Your task to perform on an android device: Open Chrome and go to settings Image 0: 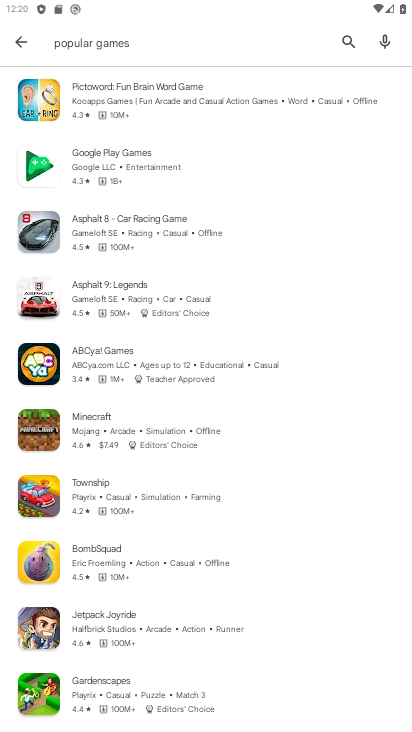
Step 0: press home button
Your task to perform on an android device: Open Chrome and go to settings Image 1: 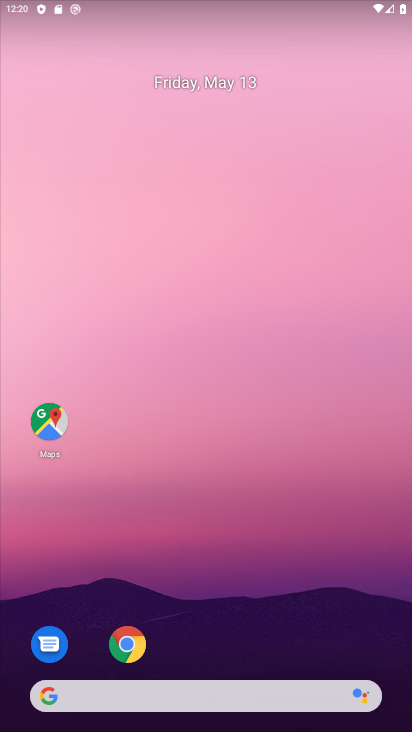
Step 1: click (126, 646)
Your task to perform on an android device: Open Chrome and go to settings Image 2: 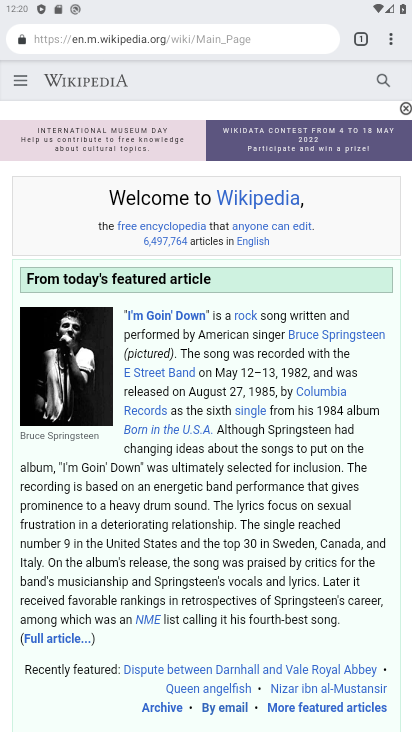
Step 2: click (395, 34)
Your task to perform on an android device: Open Chrome and go to settings Image 3: 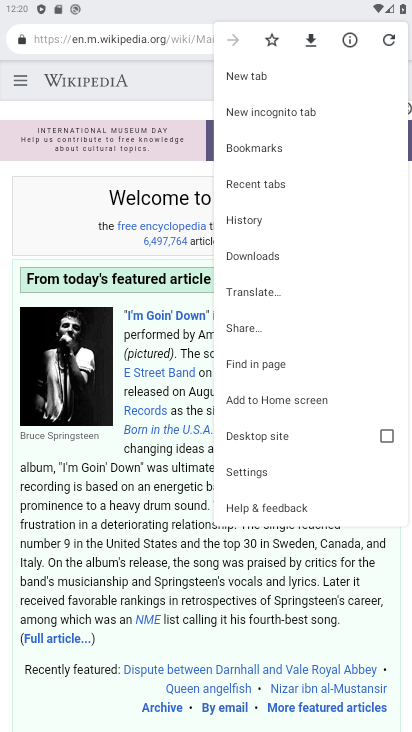
Step 3: click (261, 468)
Your task to perform on an android device: Open Chrome and go to settings Image 4: 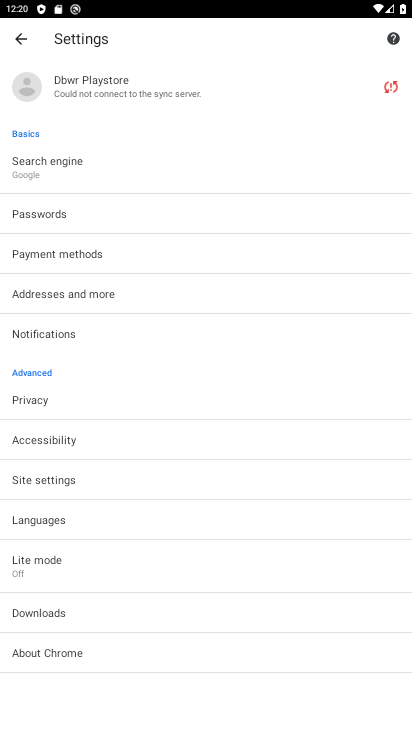
Step 4: task complete